Your task to perform on an android device: change alarm snooze length Image 0: 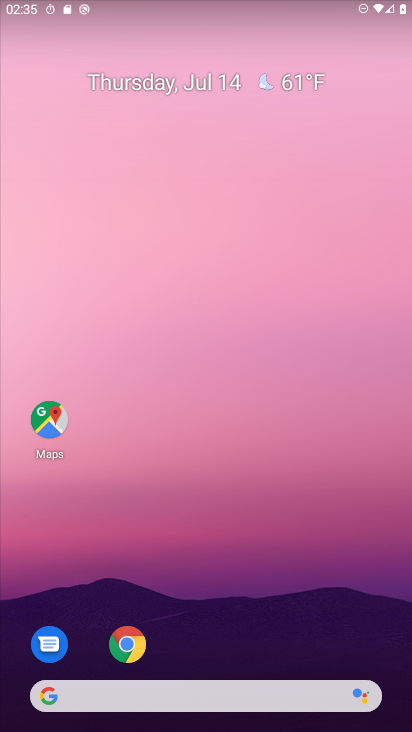
Step 0: drag from (316, 627) to (190, 88)
Your task to perform on an android device: change alarm snooze length Image 1: 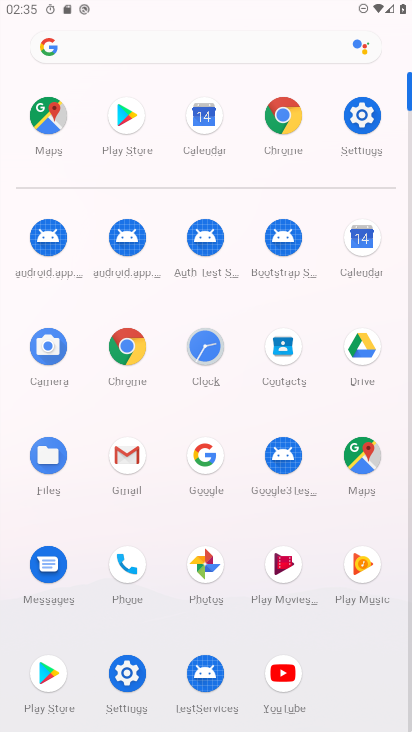
Step 1: click (208, 343)
Your task to perform on an android device: change alarm snooze length Image 2: 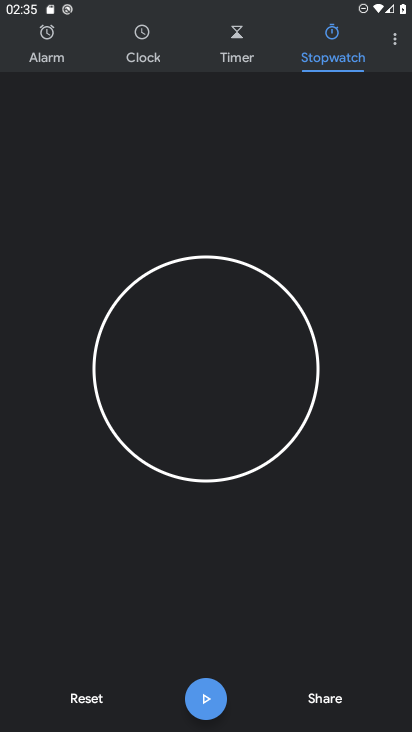
Step 2: drag from (397, 32) to (302, 75)
Your task to perform on an android device: change alarm snooze length Image 3: 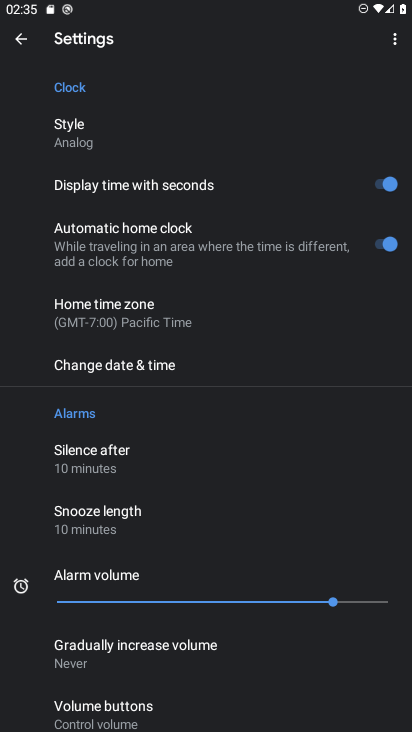
Step 3: click (117, 508)
Your task to perform on an android device: change alarm snooze length Image 4: 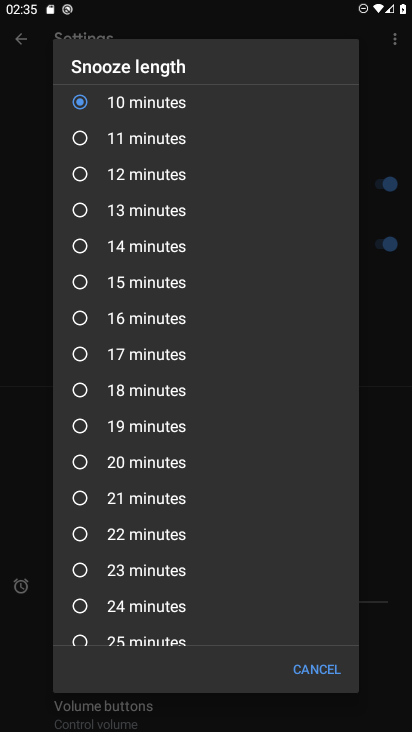
Step 4: click (141, 145)
Your task to perform on an android device: change alarm snooze length Image 5: 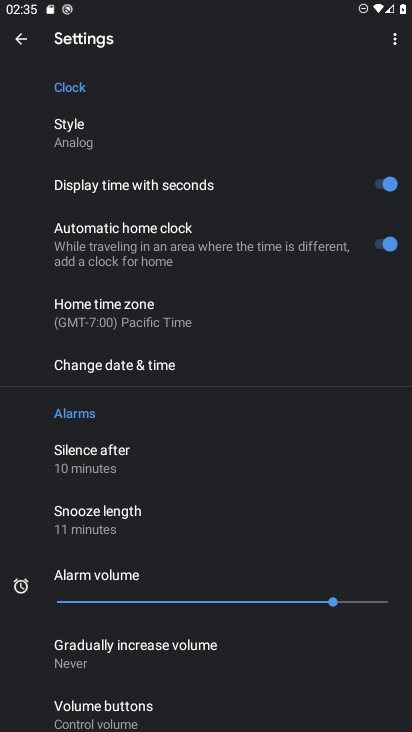
Step 5: task complete